Your task to perform on an android device: Search for hotels in Miami Image 0: 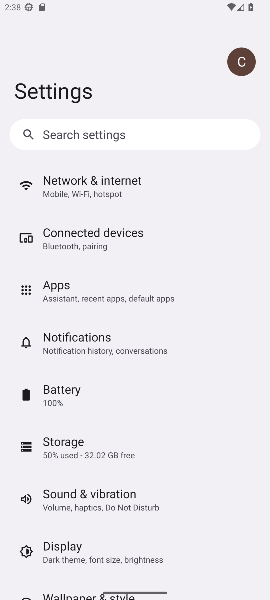
Step 0: press home button
Your task to perform on an android device: Search for hotels in Miami Image 1: 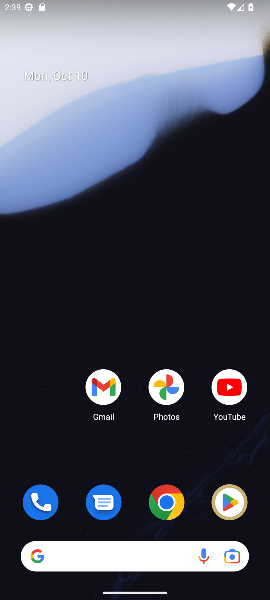
Step 1: click (160, 504)
Your task to perform on an android device: Search for hotels in Miami Image 2: 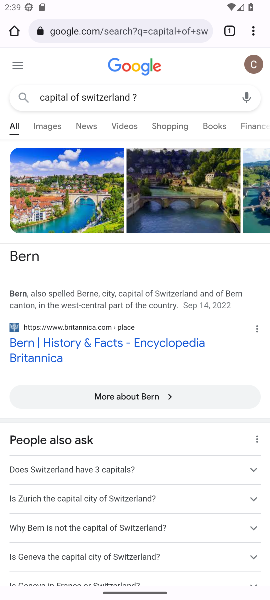
Step 2: click (159, 30)
Your task to perform on an android device: Search for hotels in Miami Image 3: 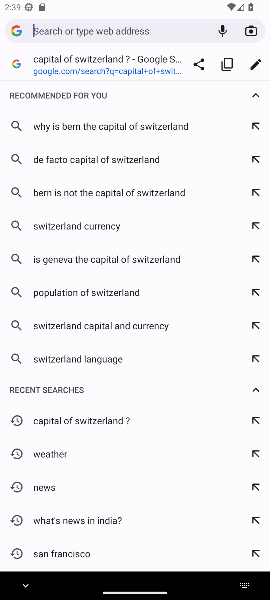
Step 3: type "hotels in miami"
Your task to perform on an android device: Search for hotels in Miami Image 4: 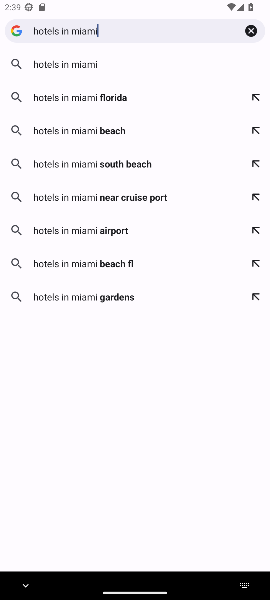
Step 4: click (135, 68)
Your task to perform on an android device: Search for hotels in Miami Image 5: 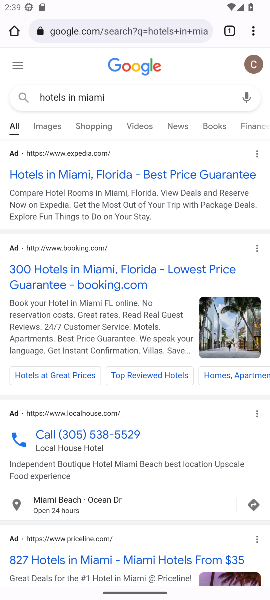
Step 5: click (121, 173)
Your task to perform on an android device: Search for hotels in Miami Image 6: 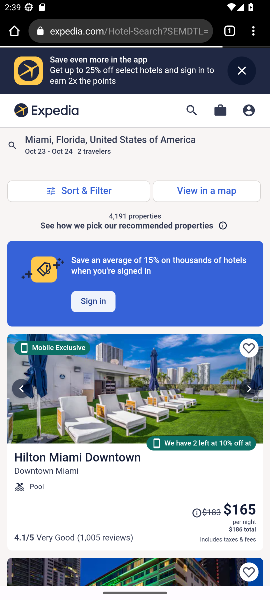
Step 6: click (135, 295)
Your task to perform on an android device: Search for hotels in Miami Image 7: 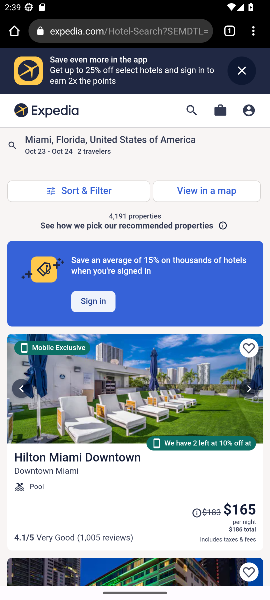
Step 7: task complete